Your task to perform on an android device: change the clock style Image 0: 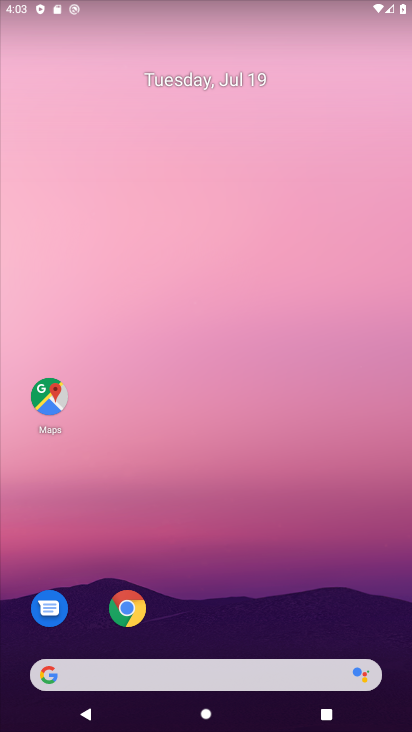
Step 0: drag from (221, 331) to (174, 1)
Your task to perform on an android device: change the clock style Image 1: 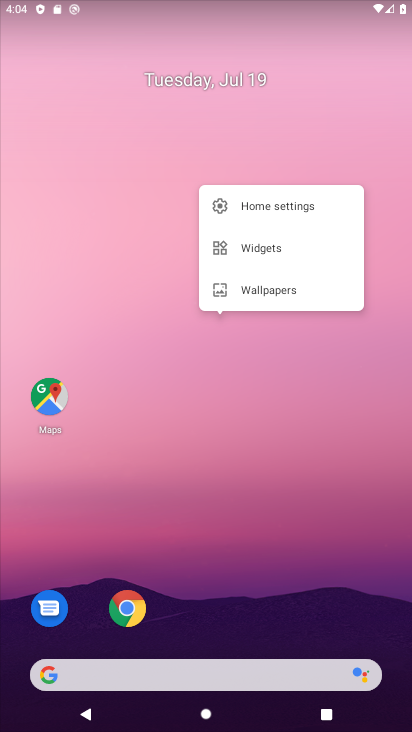
Step 1: click (191, 639)
Your task to perform on an android device: change the clock style Image 2: 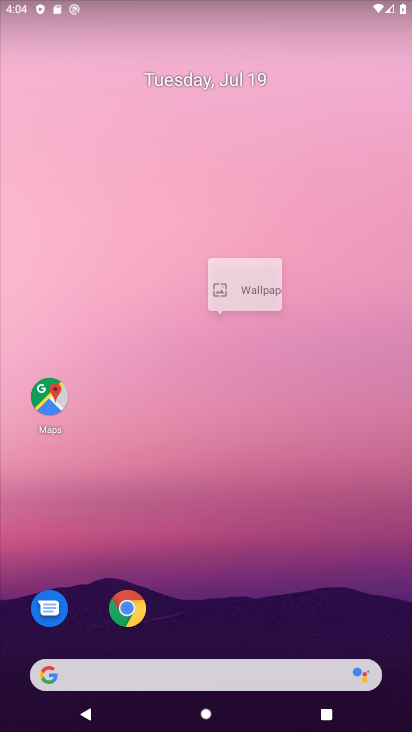
Step 2: drag from (191, 639) to (177, 37)
Your task to perform on an android device: change the clock style Image 3: 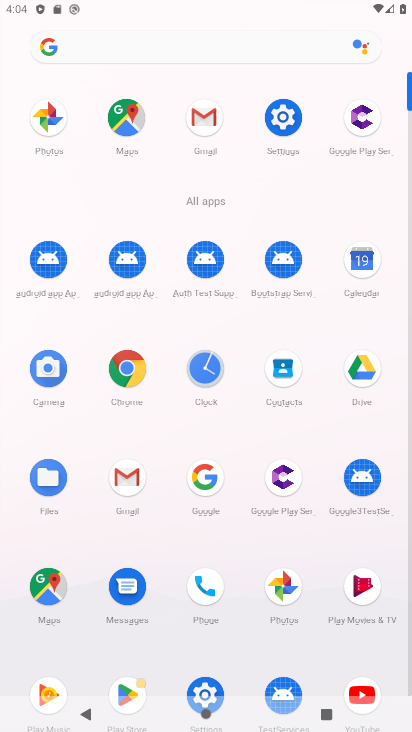
Step 3: click (202, 388)
Your task to perform on an android device: change the clock style Image 4: 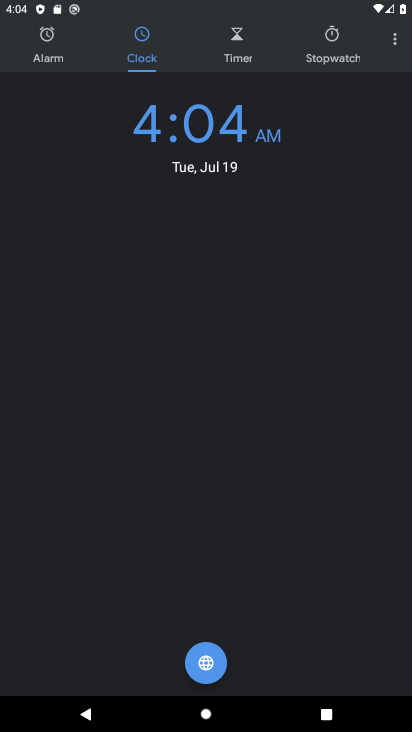
Step 4: click (393, 52)
Your task to perform on an android device: change the clock style Image 5: 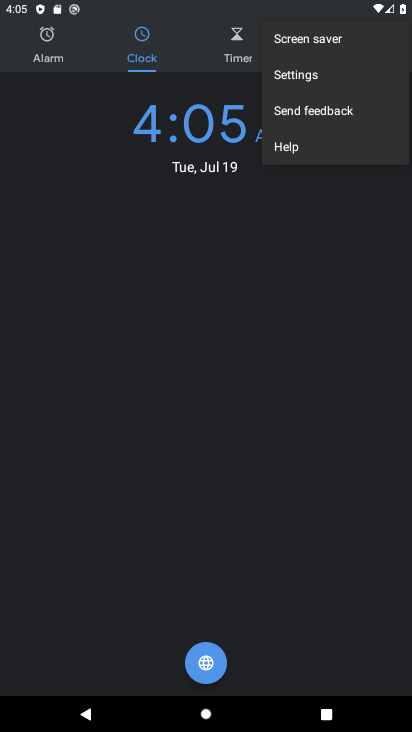
Step 5: click (307, 74)
Your task to perform on an android device: change the clock style Image 6: 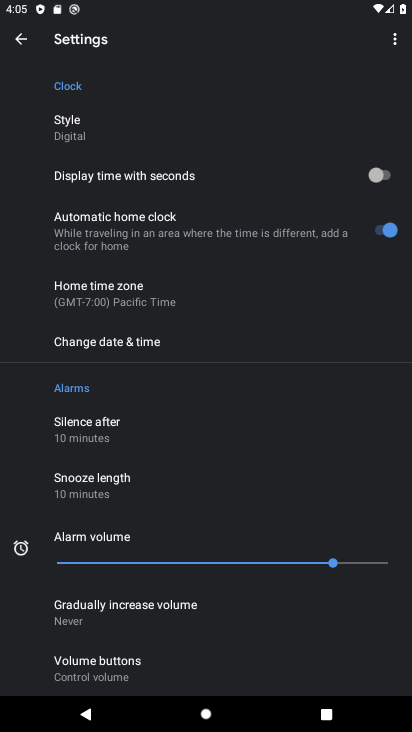
Step 6: click (72, 137)
Your task to perform on an android device: change the clock style Image 7: 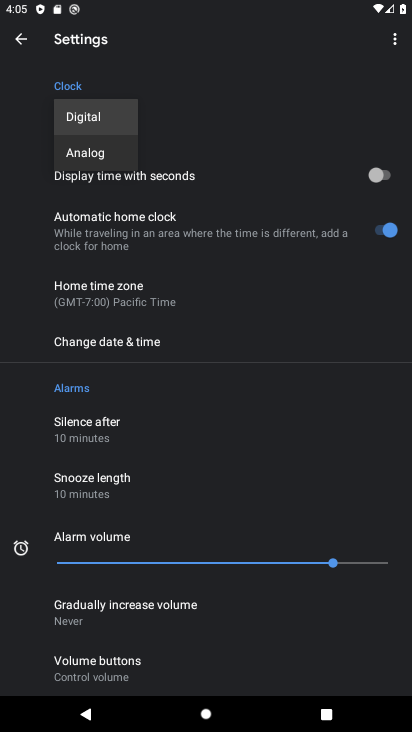
Step 7: click (136, 166)
Your task to perform on an android device: change the clock style Image 8: 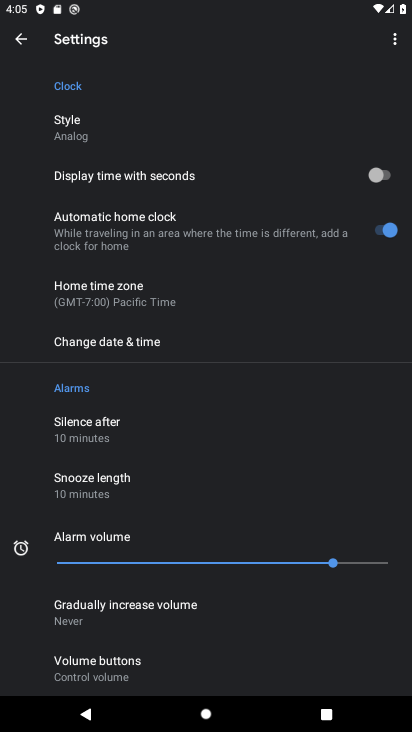
Step 8: task complete